Your task to perform on an android device: set default search engine in the chrome app Image 0: 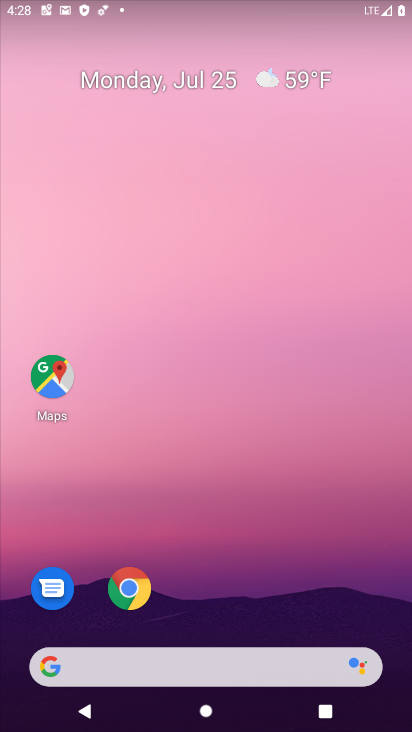
Step 0: drag from (229, 629) to (152, 50)
Your task to perform on an android device: set default search engine in the chrome app Image 1: 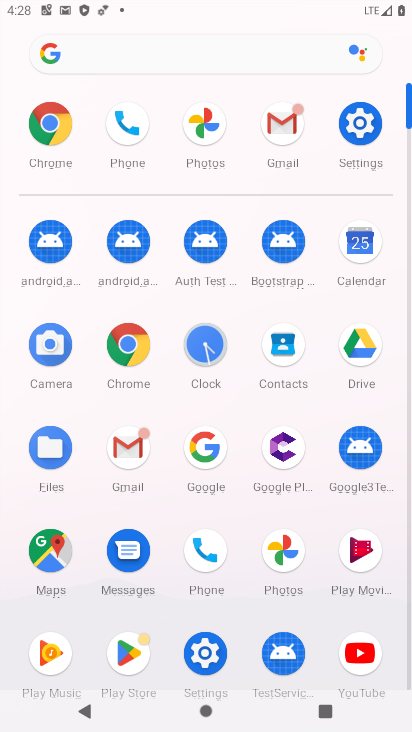
Step 1: click (132, 342)
Your task to perform on an android device: set default search engine in the chrome app Image 2: 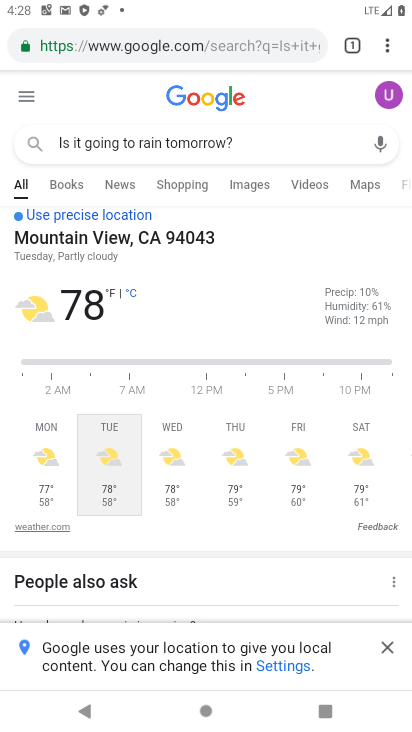
Step 2: task complete